Your task to perform on an android device: open a bookmark in the chrome app Image 0: 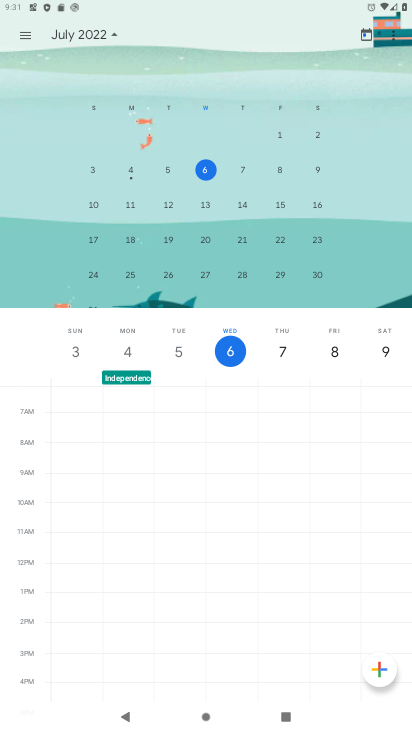
Step 0: press home button
Your task to perform on an android device: open a bookmark in the chrome app Image 1: 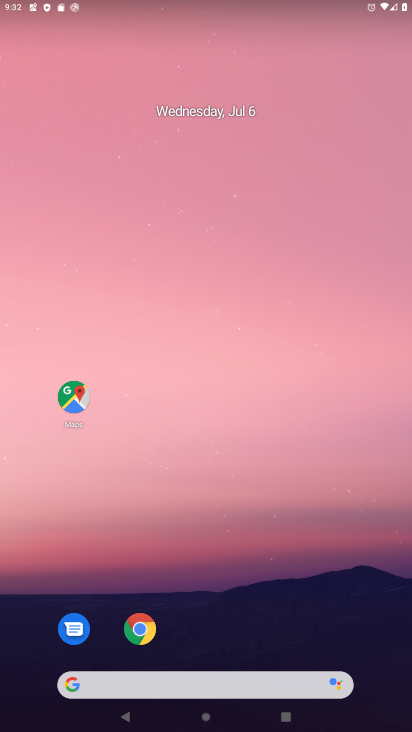
Step 1: click (137, 621)
Your task to perform on an android device: open a bookmark in the chrome app Image 2: 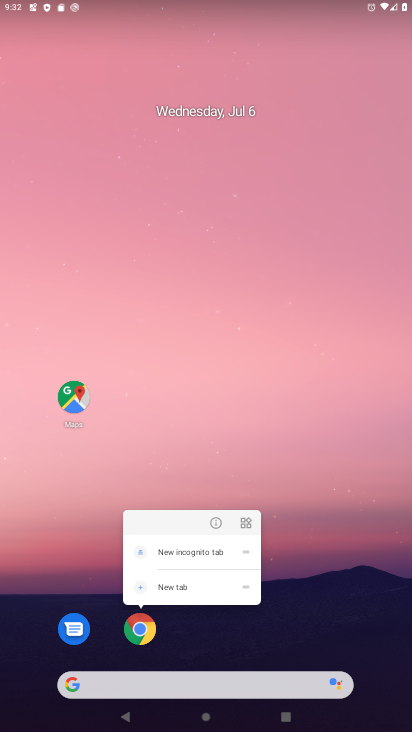
Step 2: click (141, 634)
Your task to perform on an android device: open a bookmark in the chrome app Image 3: 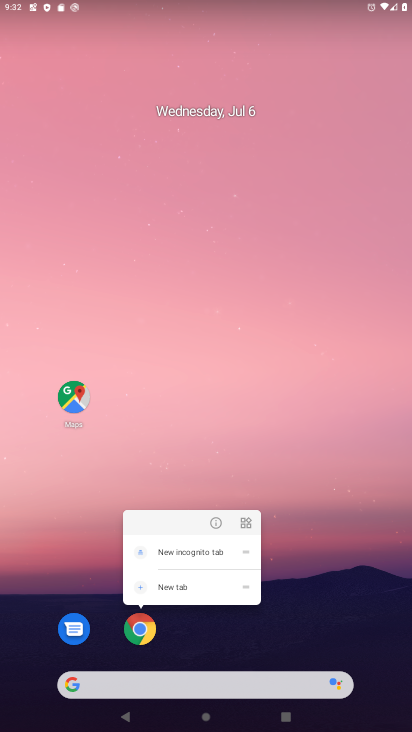
Step 3: click (129, 623)
Your task to perform on an android device: open a bookmark in the chrome app Image 4: 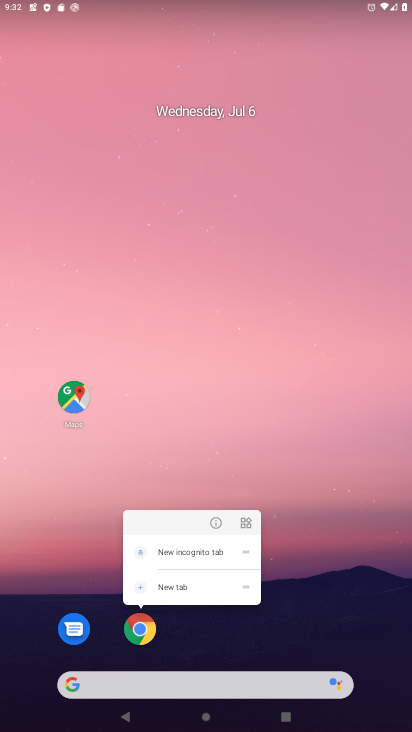
Step 4: task complete